Your task to perform on an android device: Turn on the flashlight Image 0: 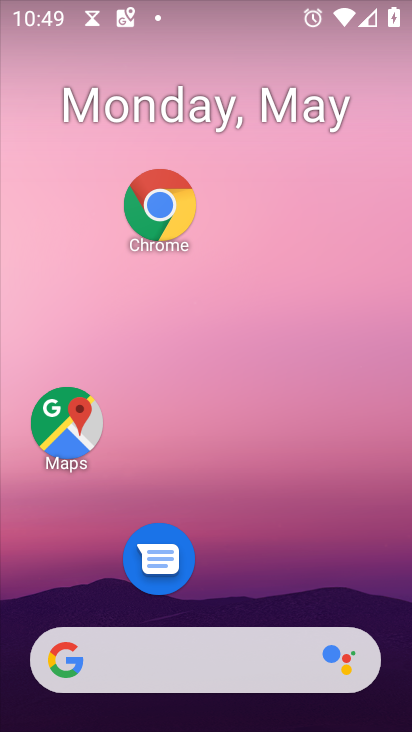
Step 0: drag from (228, 708) to (144, 129)
Your task to perform on an android device: Turn on the flashlight Image 1: 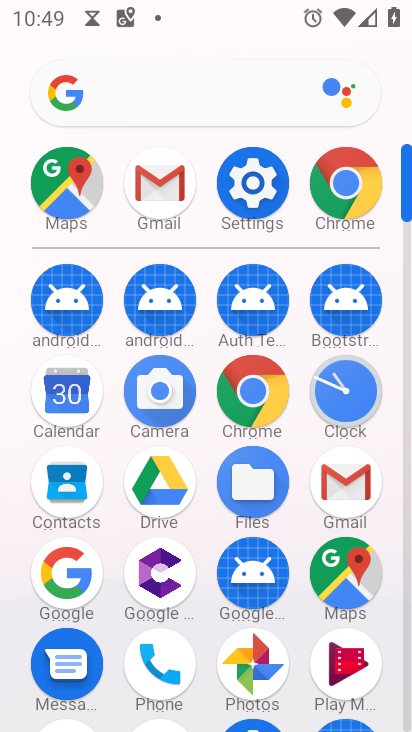
Step 1: task complete